Your task to perform on an android device: turn on airplane mode Image 0: 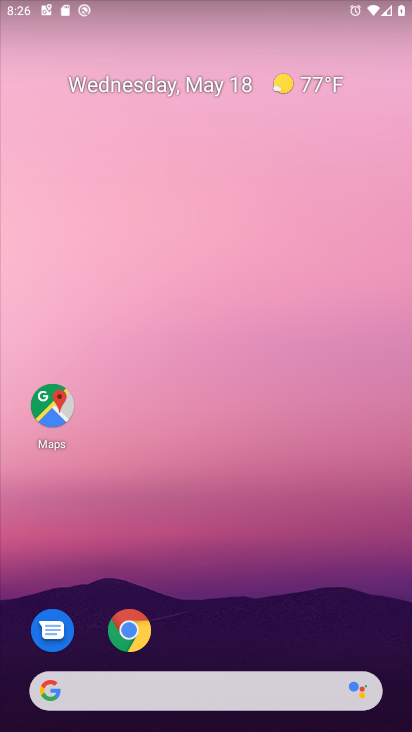
Step 0: drag from (202, 601) to (253, 188)
Your task to perform on an android device: turn on airplane mode Image 1: 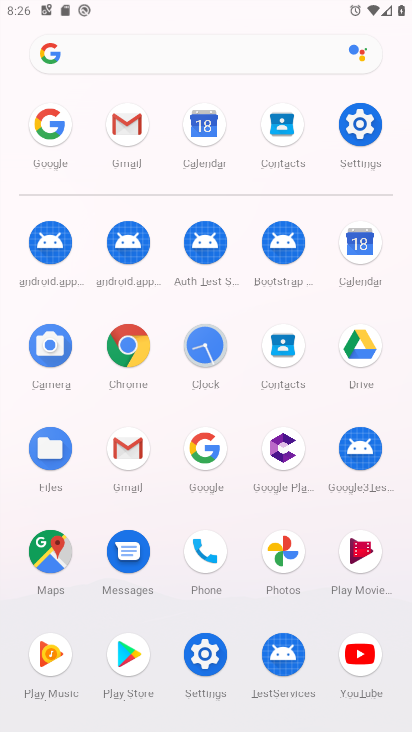
Step 1: click (363, 121)
Your task to perform on an android device: turn on airplane mode Image 2: 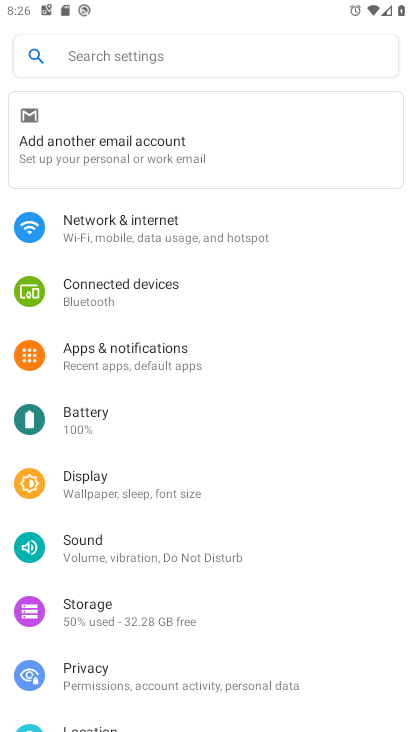
Step 2: click (219, 230)
Your task to perform on an android device: turn on airplane mode Image 3: 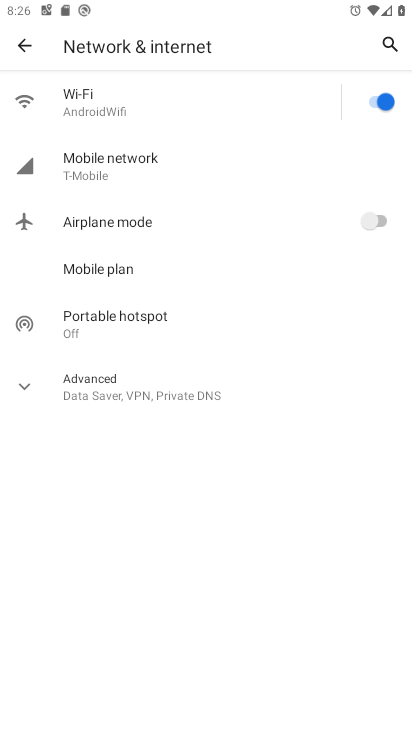
Step 3: click (377, 219)
Your task to perform on an android device: turn on airplane mode Image 4: 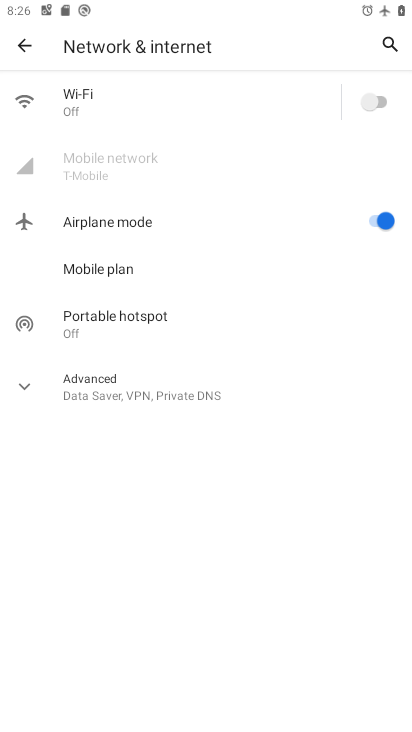
Step 4: task complete